Your task to perform on an android device: turn off translation in the chrome app Image 0: 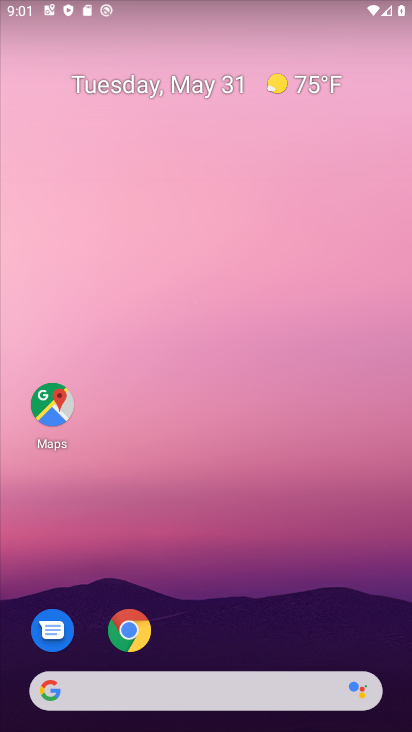
Step 0: drag from (216, 611) to (244, 197)
Your task to perform on an android device: turn off translation in the chrome app Image 1: 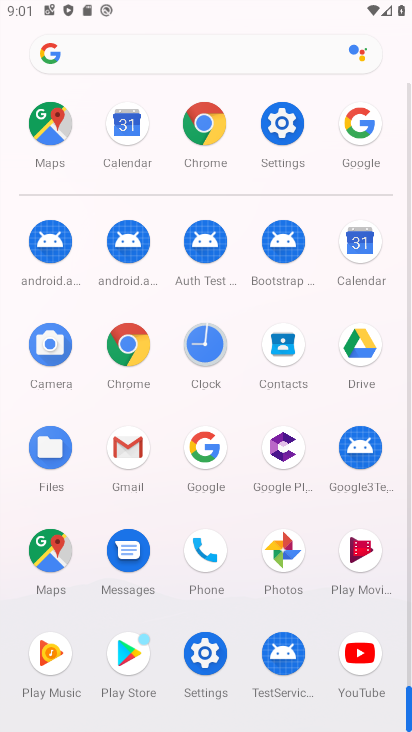
Step 1: click (206, 136)
Your task to perform on an android device: turn off translation in the chrome app Image 2: 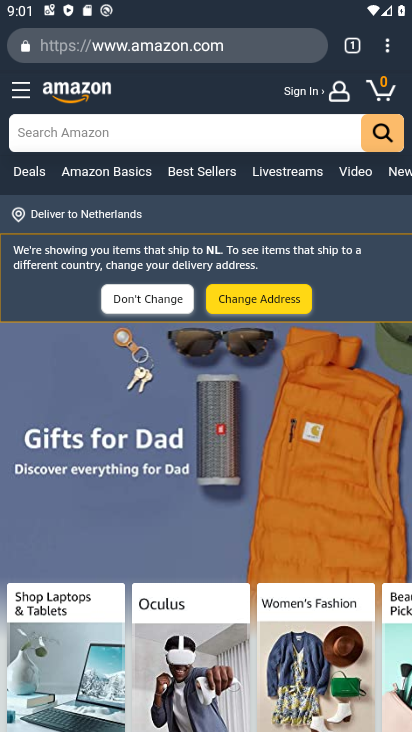
Step 2: click (385, 54)
Your task to perform on an android device: turn off translation in the chrome app Image 3: 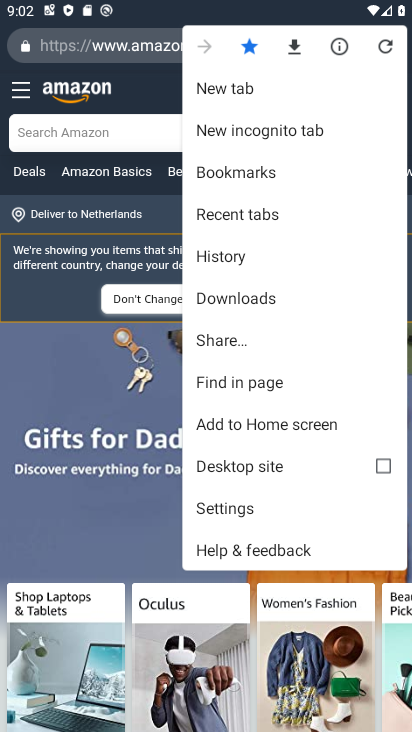
Step 3: task complete